Your task to perform on an android device: Open internet settings Image 0: 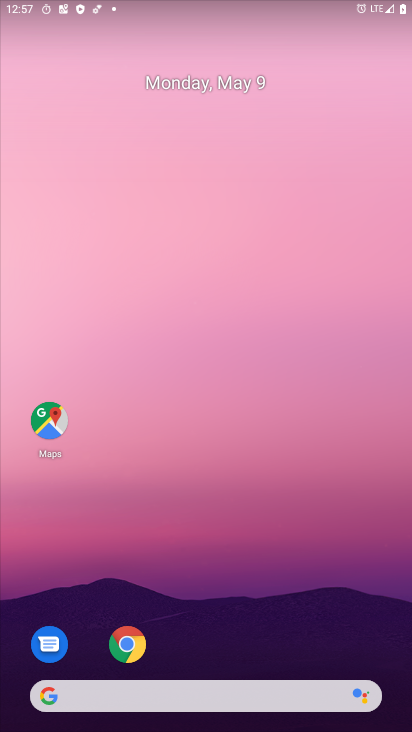
Step 0: drag from (350, 679) to (231, 218)
Your task to perform on an android device: Open internet settings Image 1: 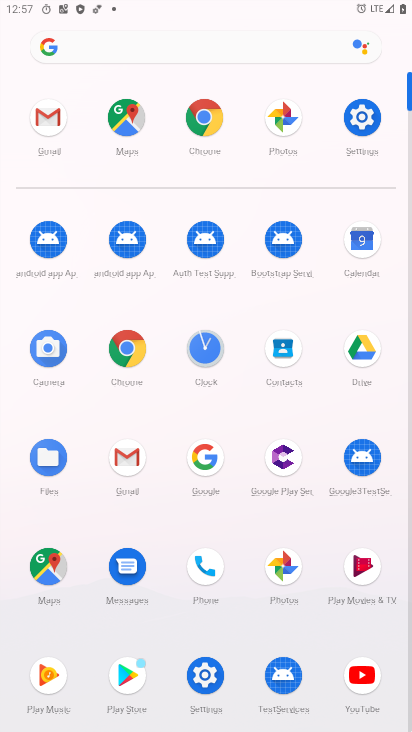
Step 1: click (363, 115)
Your task to perform on an android device: Open internet settings Image 2: 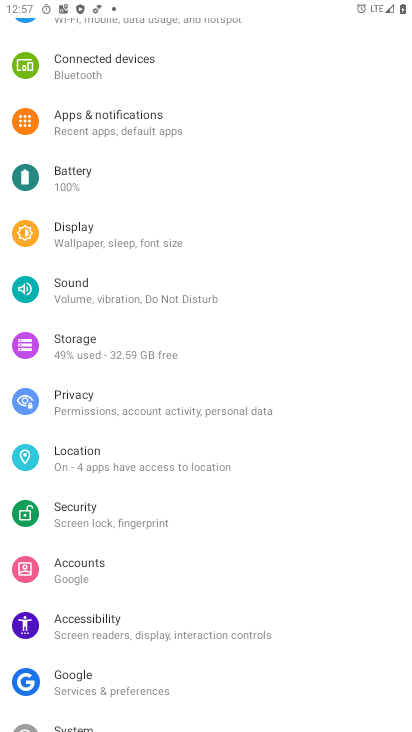
Step 2: drag from (133, 105) to (215, 496)
Your task to perform on an android device: Open internet settings Image 3: 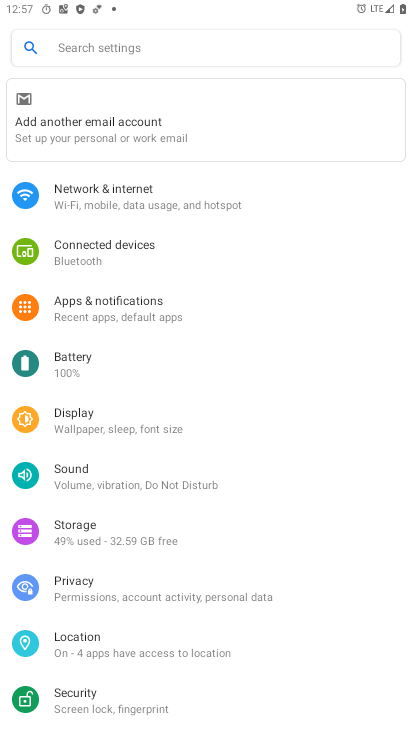
Step 3: click (99, 189)
Your task to perform on an android device: Open internet settings Image 4: 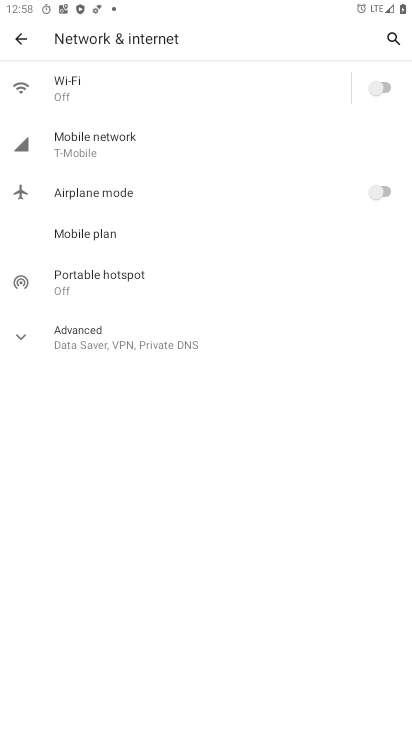
Step 4: drag from (211, 180) to (253, 408)
Your task to perform on an android device: Open internet settings Image 5: 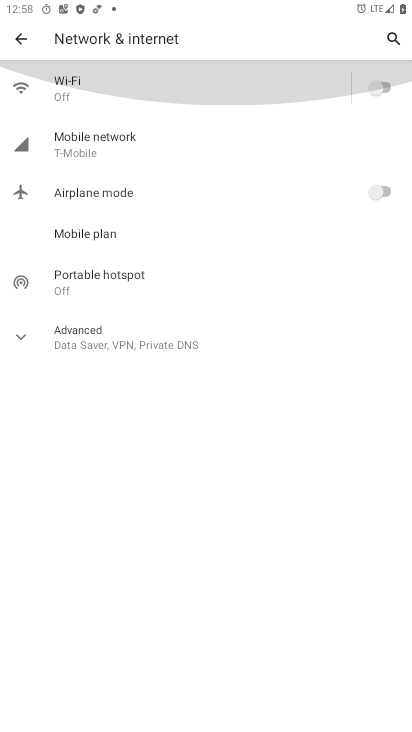
Step 5: drag from (239, 365) to (236, 109)
Your task to perform on an android device: Open internet settings Image 6: 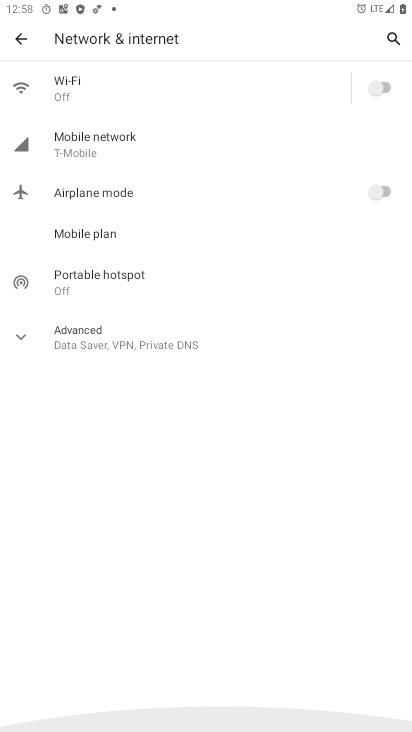
Step 6: drag from (219, 362) to (262, 65)
Your task to perform on an android device: Open internet settings Image 7: 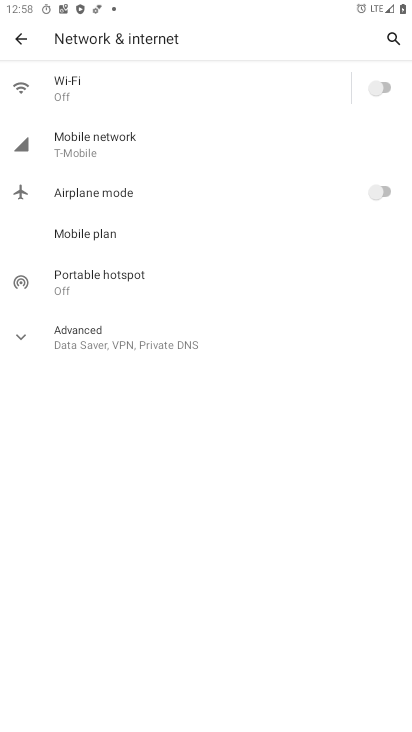
Step 7: click (22, 30)
Your task to perform on an android device: Open internet settings Image 8: 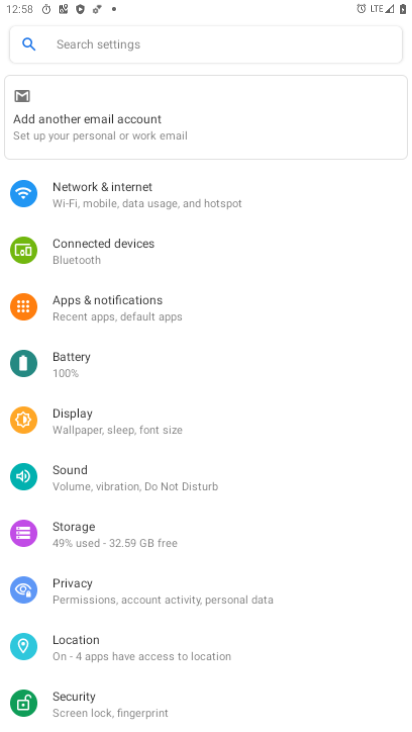
Step 8: task complete